Your task to perform on an android device: star an email in the gmail app Image 0: 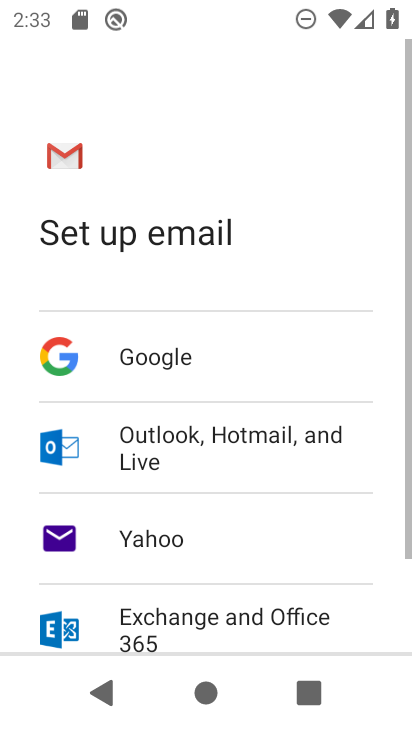
Step 0: press home button
Your task to perform on an android device: star an email in the gmail app Image 1: 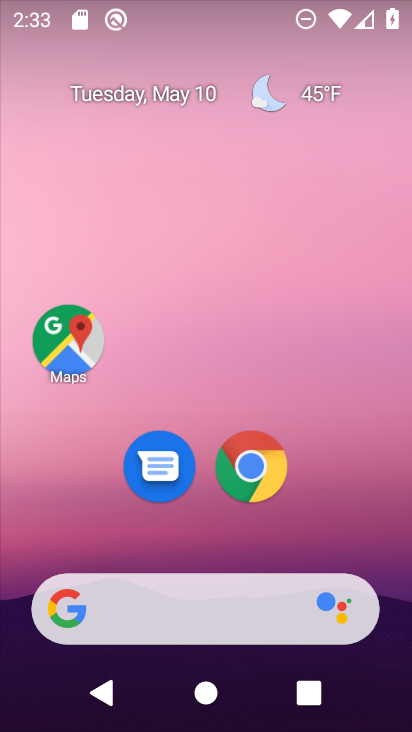
Step 1: drag from (318, 521) to (307, 0)
Your task to perform on an android device: star an email in the gmail app Image 2: 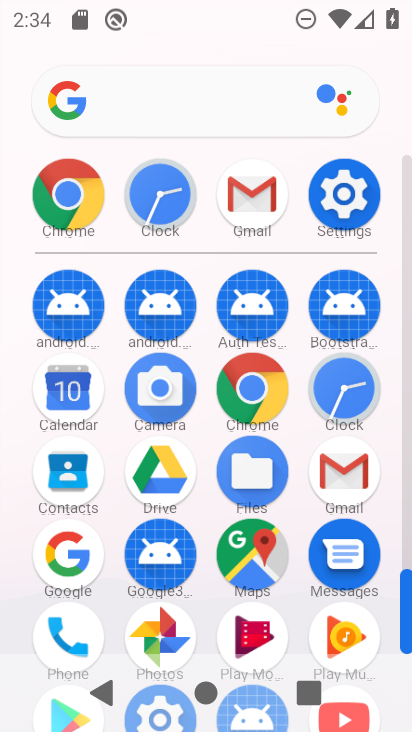
Step 2: click (315, 462)
Your task to perform on an android device: star an email in the gmail app Image 3: 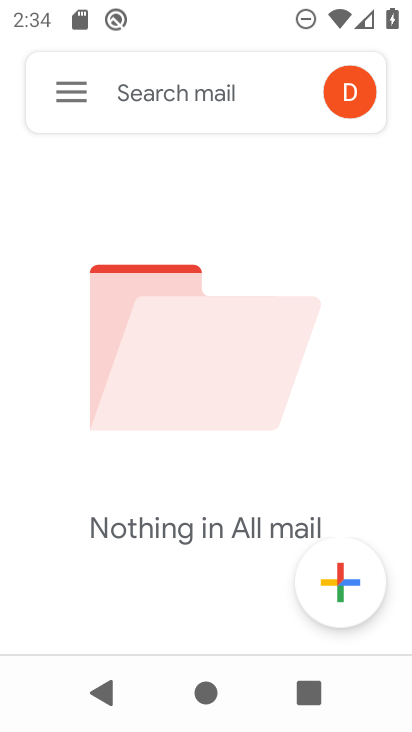
Step 3: task complete